Your task to perform on an android device: Open location settings Image 0: 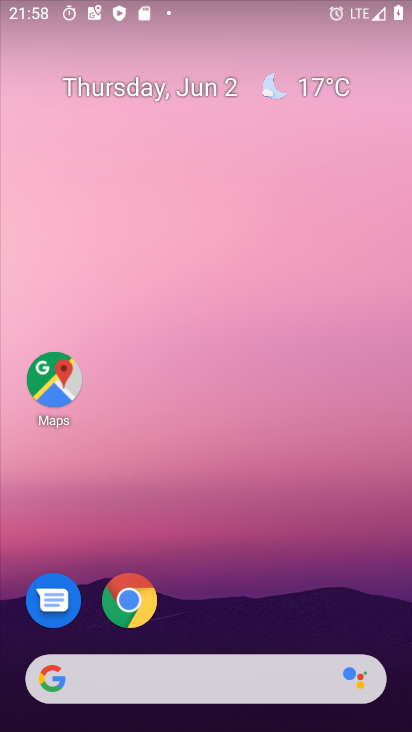
Step 0: drag from (358, 619) to (362, 196)
Your task to perform on an android device: Open location settings Image 1: 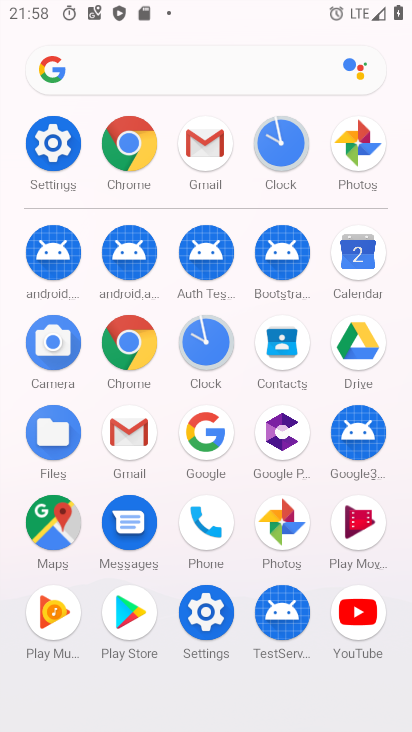
Step 1: click (210, 625)
Your task to perform on an android device: Open location settings Image 2: 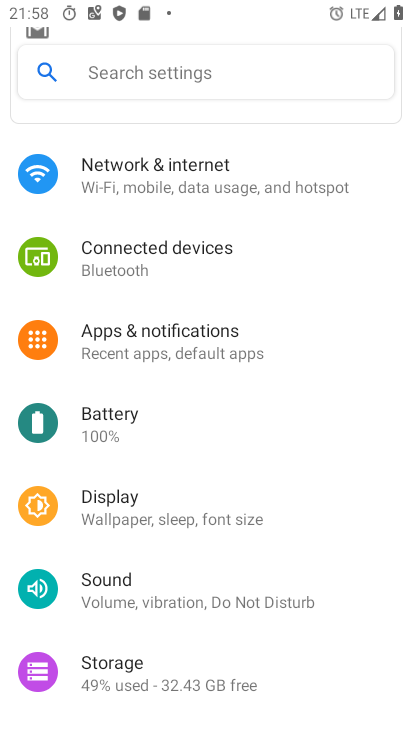
Step 2: drag from (322, 275) to (330, 461)
Your task to perform on an android device: Open location settings Image 3: 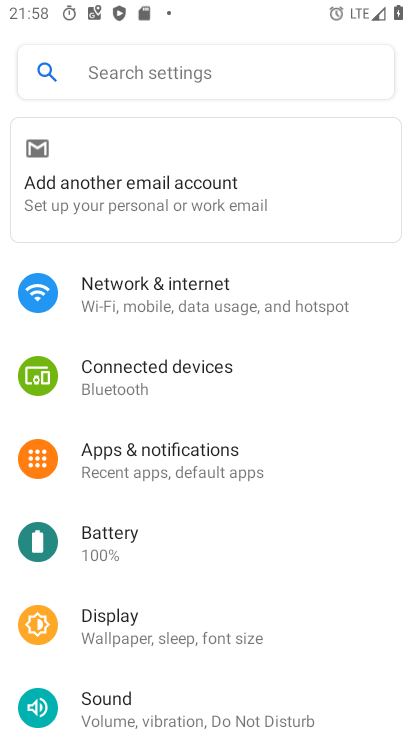
Step 3: drag from (347, 468) to (343, 310)
Your task to perform on an android device: Open location settings Image 4: 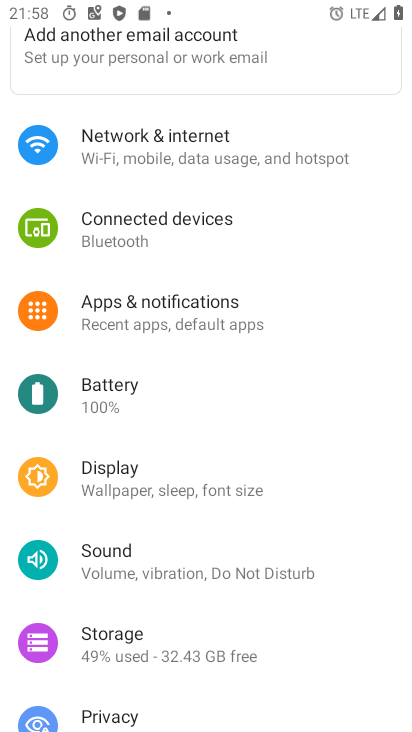
Step 4: drag from (339, 475) to (335, 362)
Your task to perform on an android device: Open location settings Image 5: 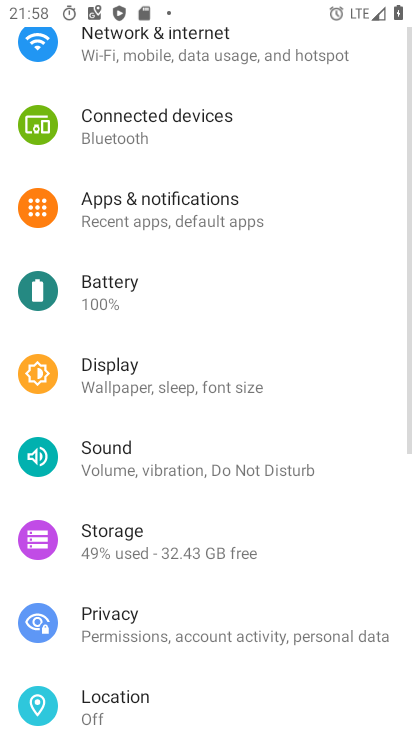
Step 5: drag from (352, 527) to (352, 388)
Your task to perform on an android device: Open location settings Image 6: 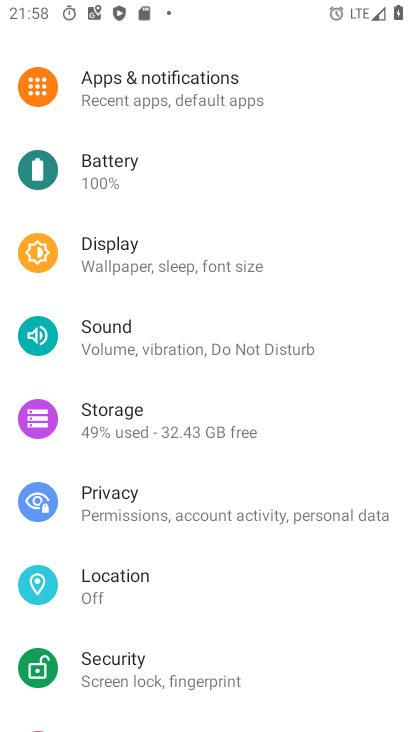
Step 6: drag from (362, 563) to (363, 439)
Your task to perform on an android device: Open location settings Image 7: 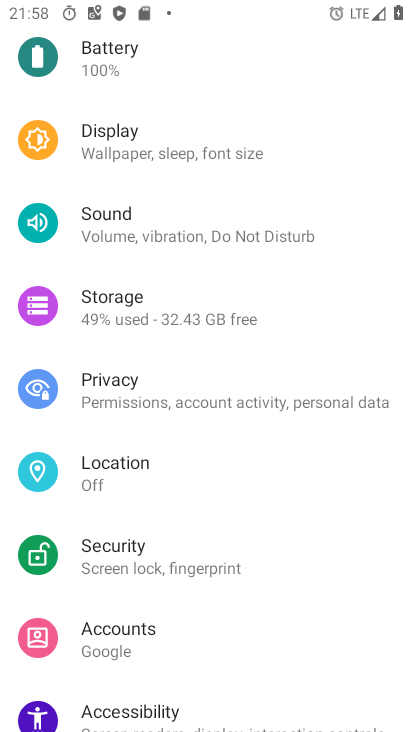
Step 7: drag from (349, 536) to (329, 444)
Your task to perform on an android device: Open location settings Image 8: 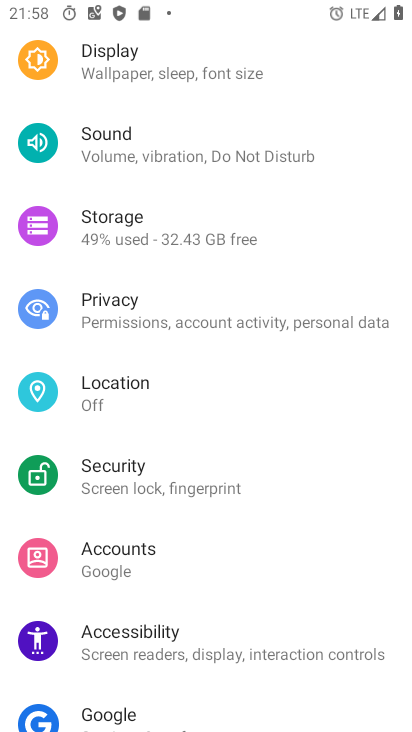
Step 8: click (197, 413)
Your task to perform on an android device: Open location settings Image 9: 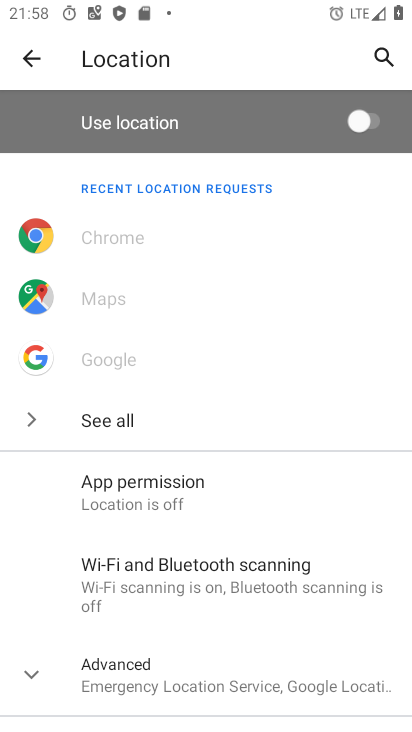
Step 9: task complete